Your task to perform on an android device: Open notification settings Image 0: 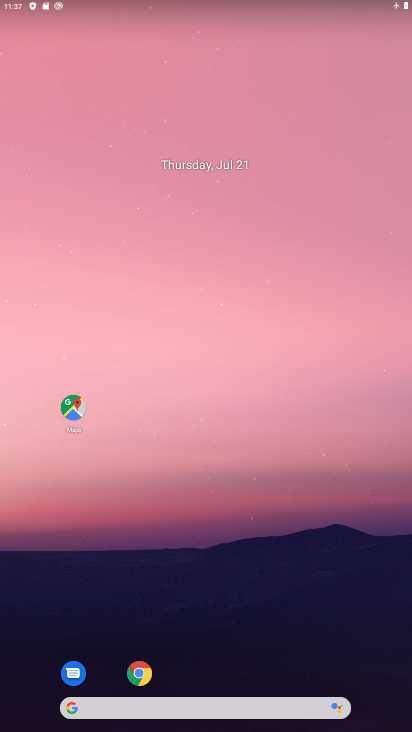
Step 0: drag from (175, 630) to (188, 9)
Your task to perform on an android device: Open notification settings Image 1: 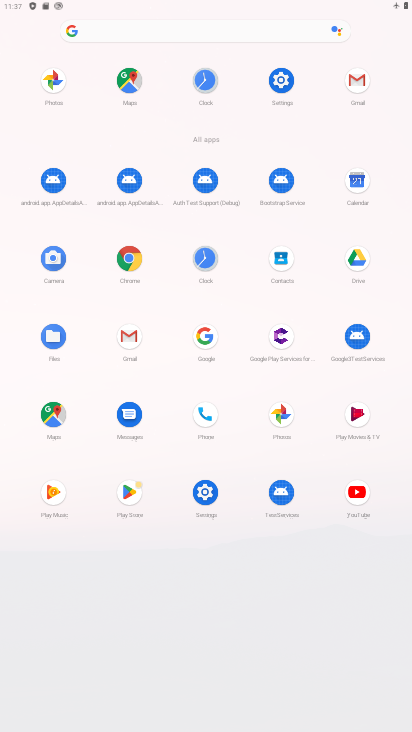
Step 1: click (212, 483)
Your task to perform on an android device: Open notification settings Image 2: 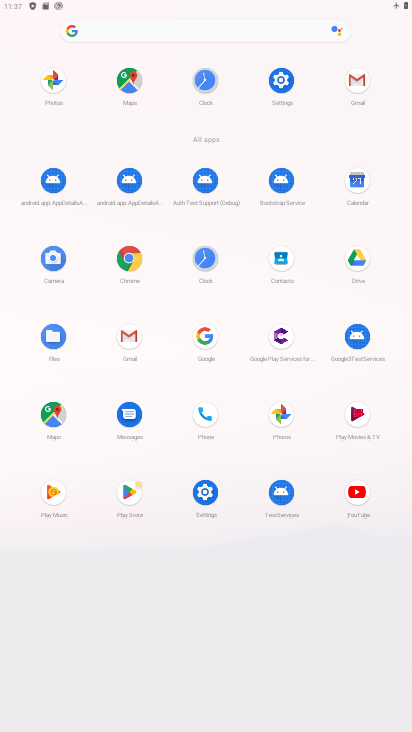
Step 2: click (198, 490)
Your task to perform on an android device: Open notification settings Image 3: 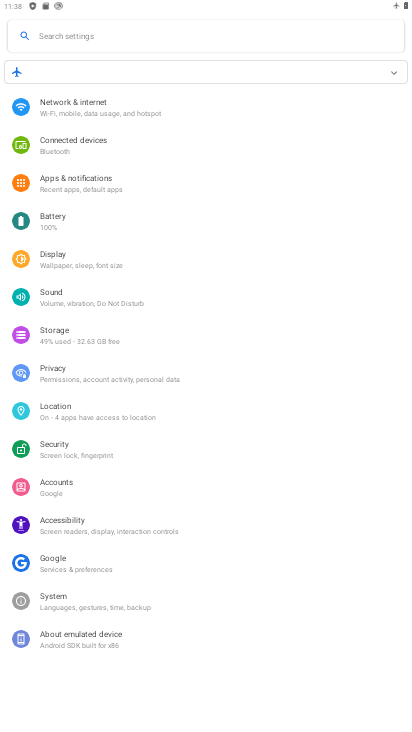
Step 3: click (77, 188)
Your task to perform on an android device: Open notification settings Image 4: 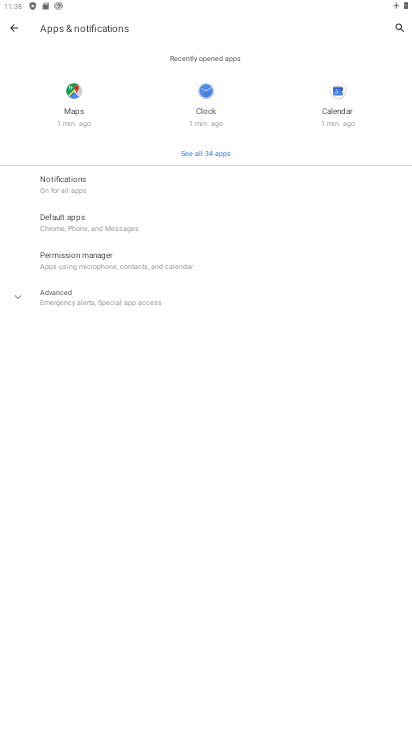
Step 4: click (101, 192)
Your task to perform on an android device: Open notification settings Image 5: 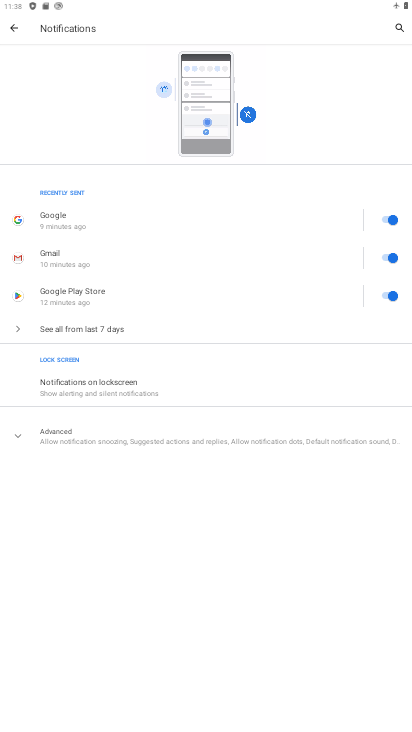
Step 5: task complete